Your task to perform on an android device: Open privacy settings Image 0: 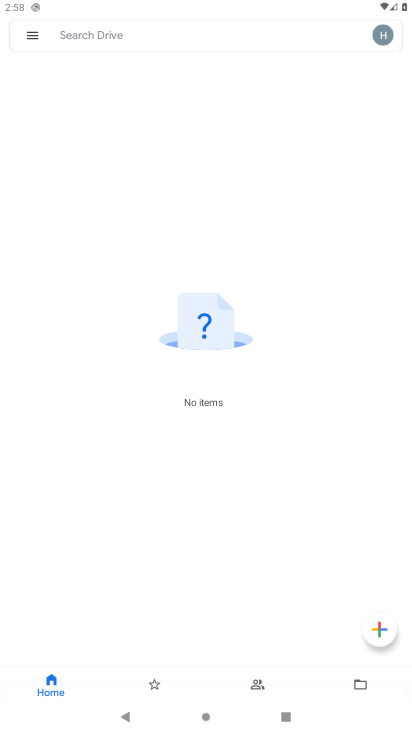
Step 0: press home button
Your task to perform on an android device: Open privacy settings Image 1: 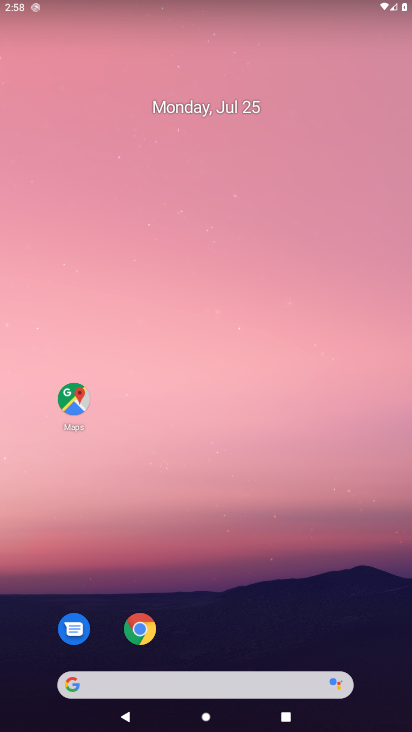
Step 1: drag from (35, 682) to (143, 149)
Your task to perform on an android device: Open privacy settings Image 2: 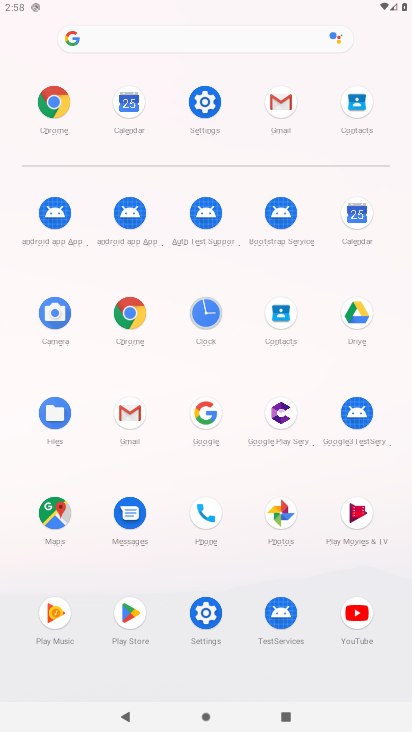
Step 2: click (218, 615)
Your task to perform on an android device: Open privacy settings Image 3: 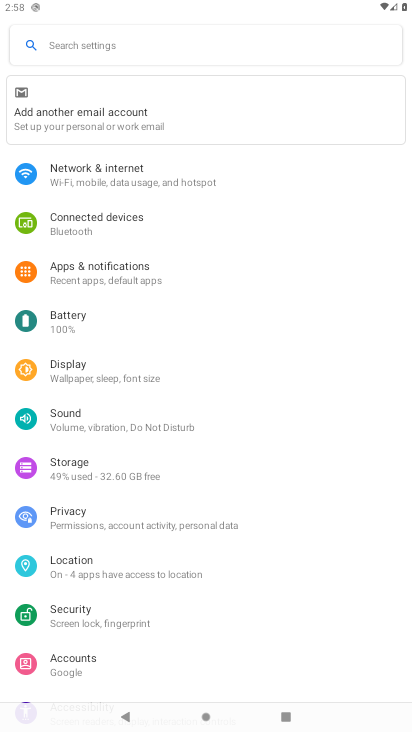
Step 3: click (77, 515)
Your task to perform on an android device: Open privacy settings Image 4: 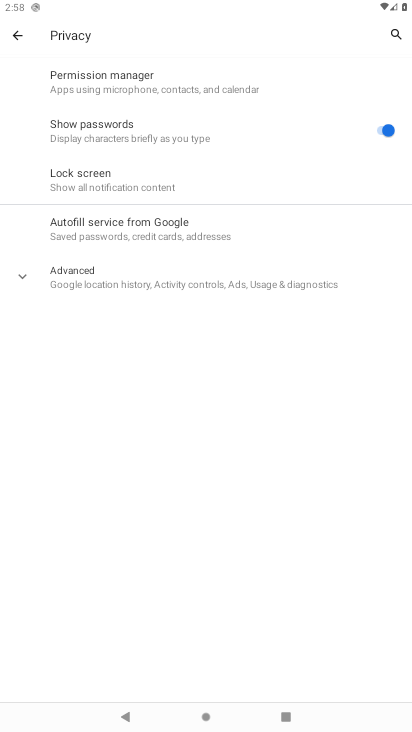
Step 4: task complete